Your task to perform on an android device: What's the weather today? Image 0: 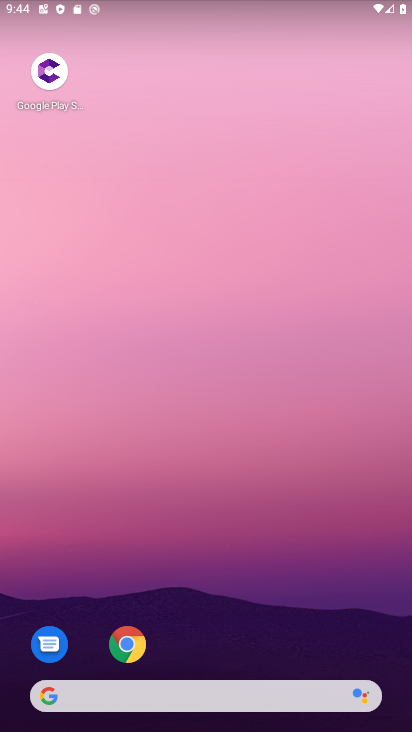
Step 0: click (145, 691)
Your task to perform on an android device: What's the weather today? Image 1: 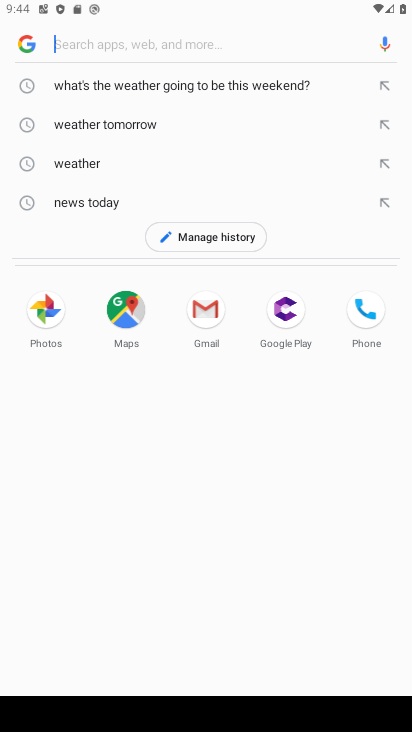
Step 1: type "What's the weather today?"
Your task to perform on an android device: What's the weather today? Image 2: 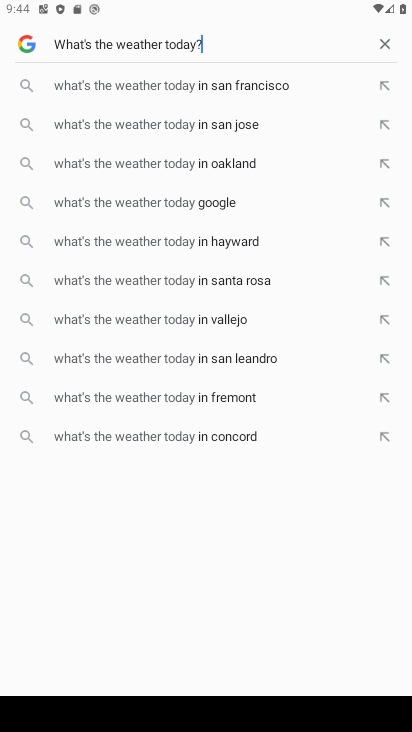
Step 2: press enter
Your task to perform on an android device: What's the weather today? Image 3: 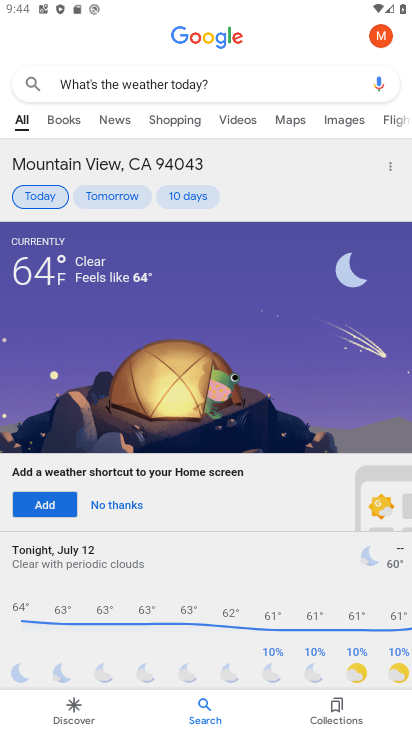
Step 3: task complete